Your task to perform on an android device: Open Wikipedia Image 0: 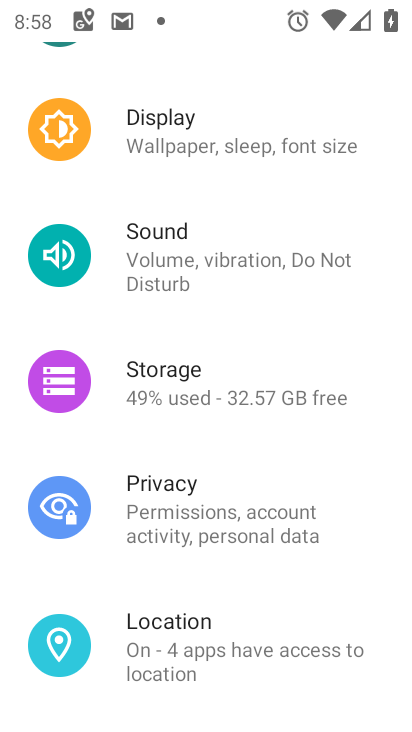
Step 0: press home button
Your task to perform on an android device: Open Wikipedia Image 1: 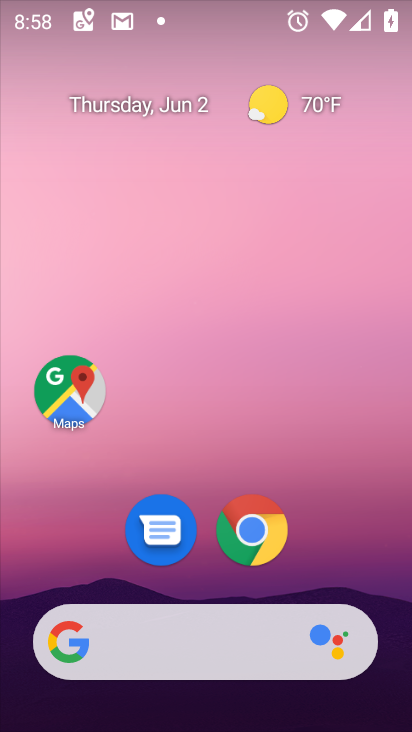
Step 1: click (239, 528)
Your task to perform on an android device: Open Wikipedia Image 2: 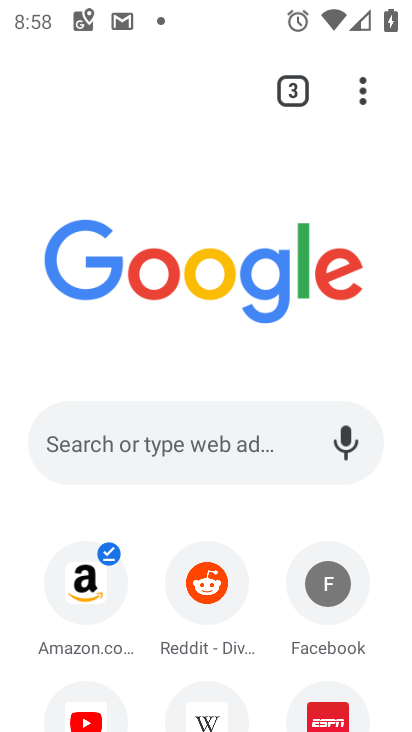
Step 2: drag from (152, 637) to (156, 327)
Your task to perform on an android device: Open Wikipedia Image 3: 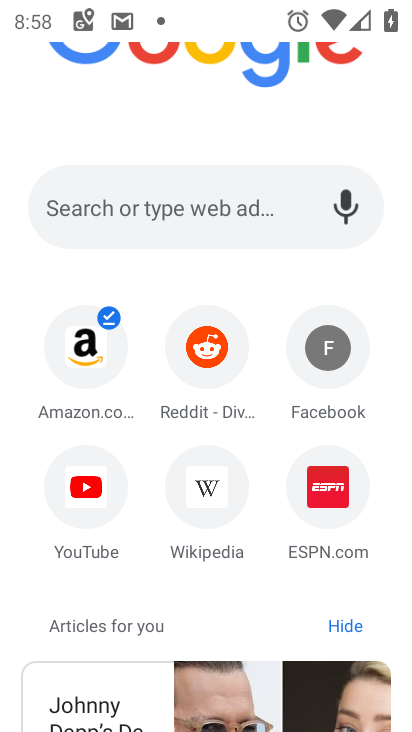
Step 3: click (205, 486)
Your task to perform on an android device: Open Wikipedia Image 4: 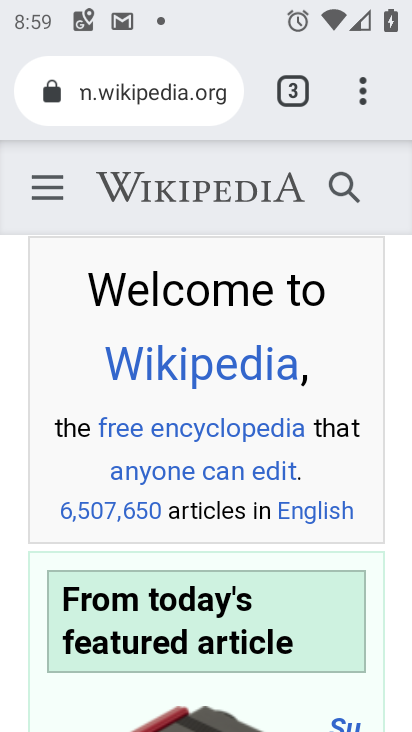
Step 4: task complete